Your task to perform on an android device: change the upload size in google photos Image 0: 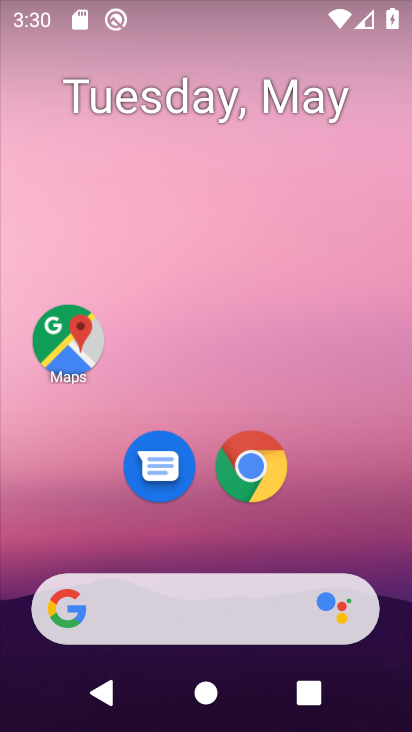
Step 0: drag from (317, 513) to (317, 56)
Your task to perform on an android device: change the upload size in google photos Image 1: 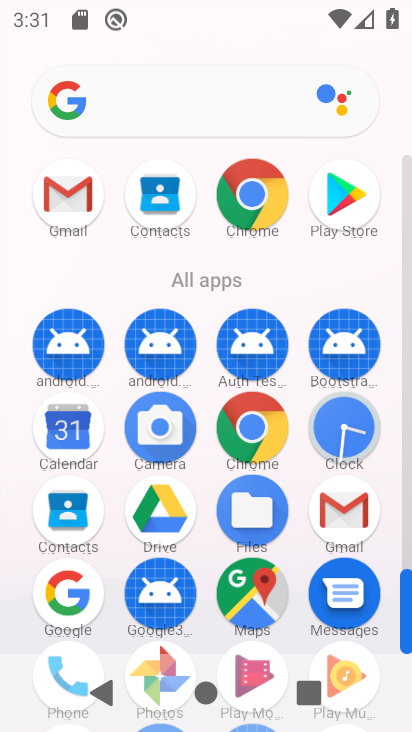
Step 1: drag from (192, 290) to (243, 28)
Your task to perform on an android device: change the upload size in google photos Image 2: 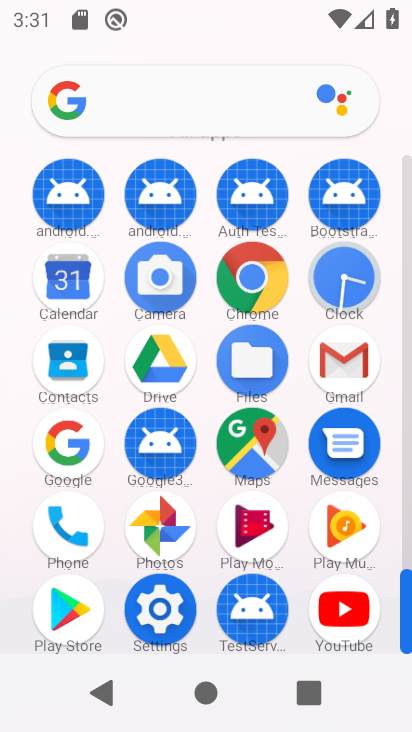
Step 2: click (160, 524)
Your task to perform on an android device: change the upload size in google photos Image 3: 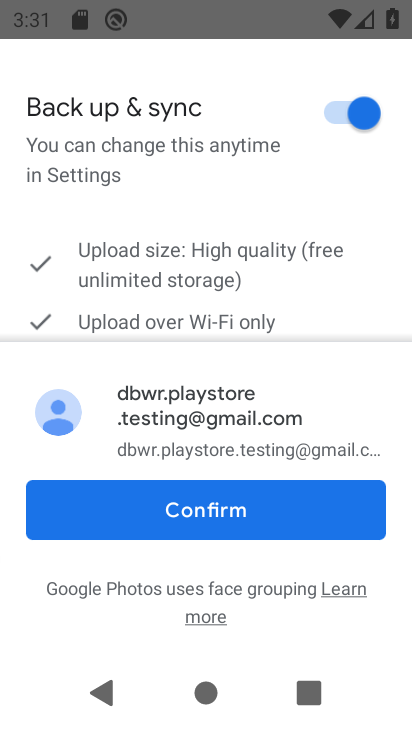
Step 3: click (292, 509)
Your task to perform on an android device: change the upload size in google photos Image 4: 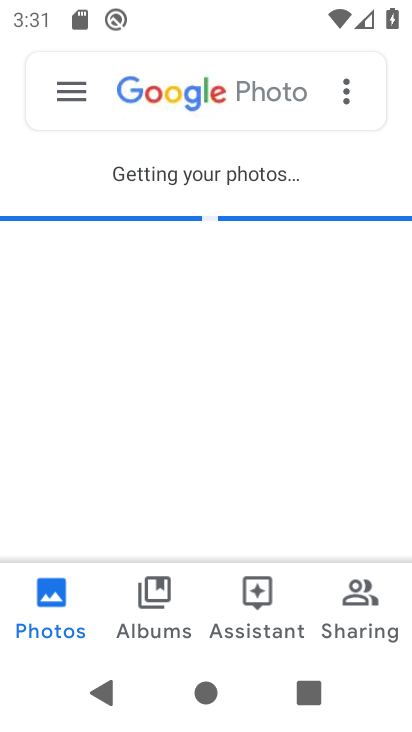
Step 4: click (58, 90)
Your task to perform on an android device: change the upload size in google photos Image 5: 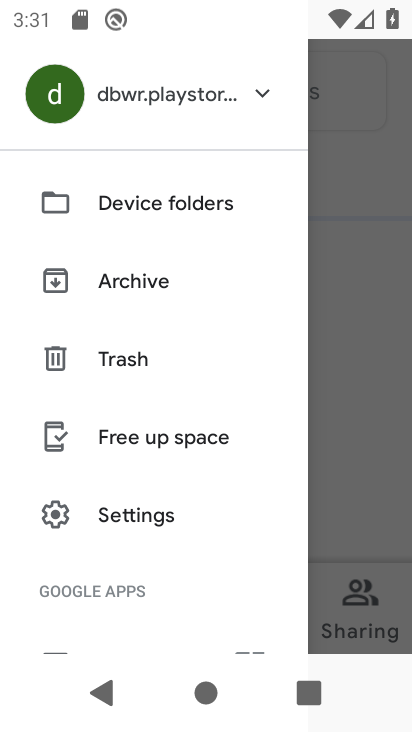
Step 5: click (159, 510)
Your task to perform on an android device: change the upload size in google photos Image 6: 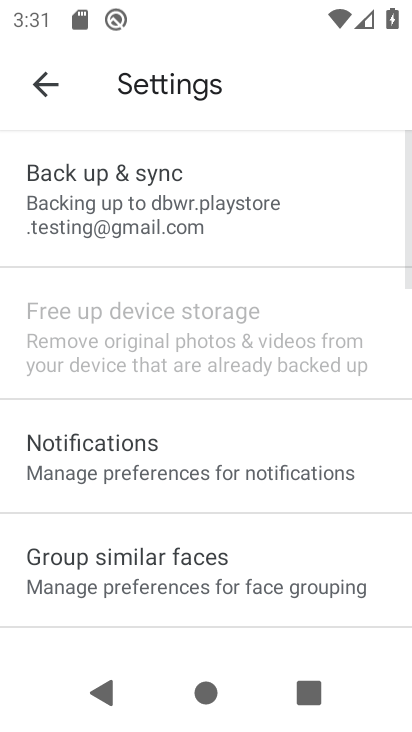
Step 6: click (143, 213)
Your task to perform on an android device: change the upload size in google photos Image 7: 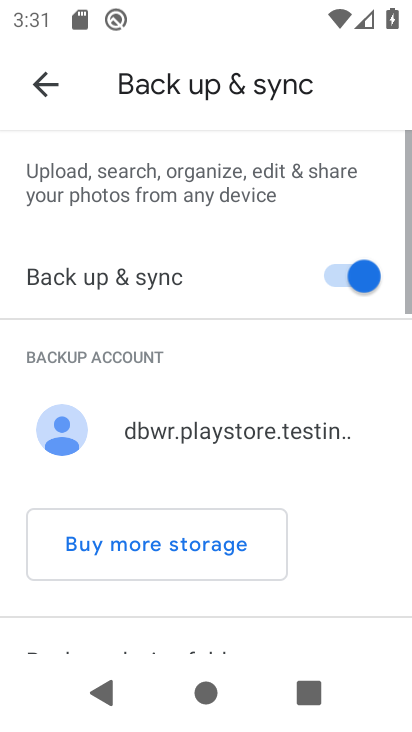
Step 7: drag from (258, 525) to (287, 221)
Your task to perform on an android device: change the upload size in google photos Image 8: 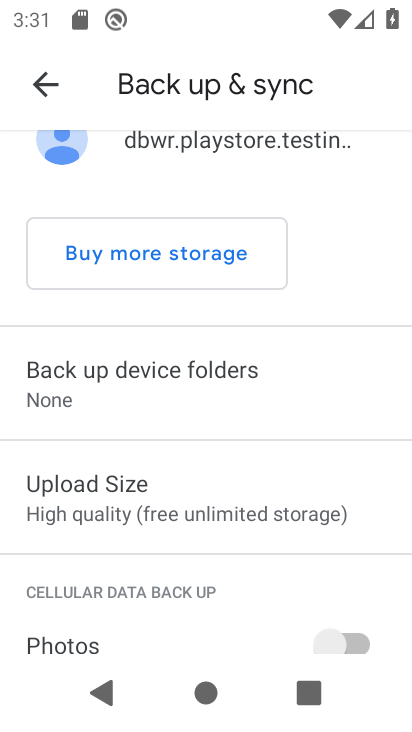
Step 8: click (134, 498)
Your task to perform on an android device: change the upload size in google photos Image 9: 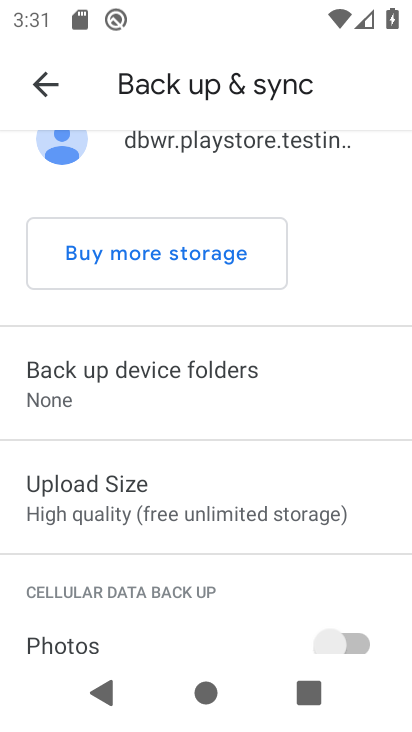
Step 9: click (134, 498)
Your task to perform on an android device: change the upload size in google photos Image 10: 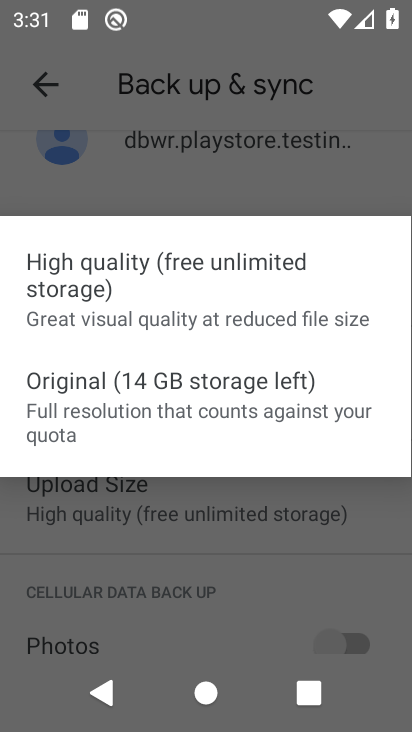
Step 10: click (149, 400)
Your task to perform on an android device: change the upload size in google photos Image 11: 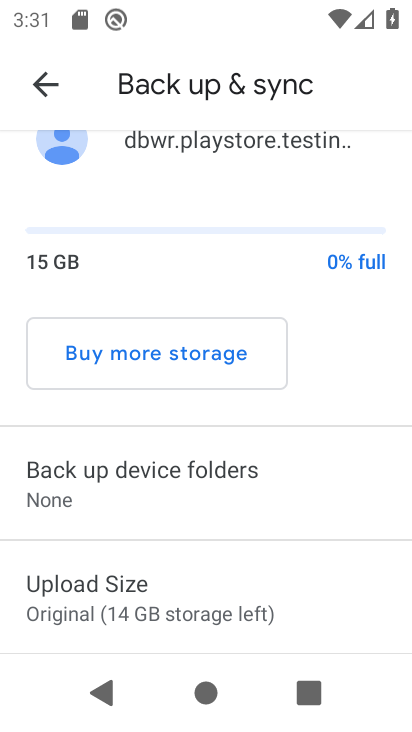
Step 11: task complete